Your task to perform on an android device: turn notification dots on Image 0: 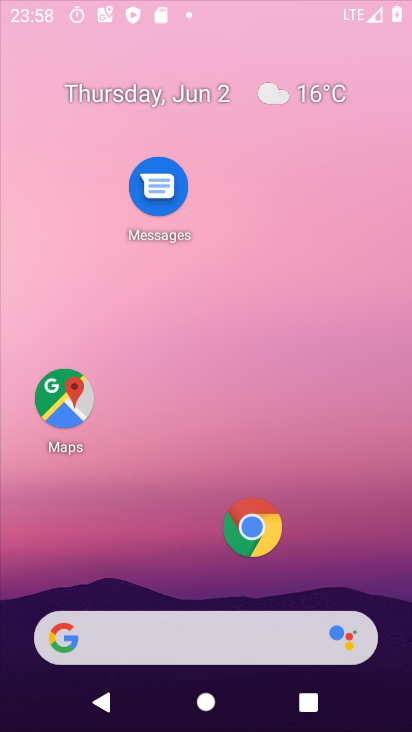
Step 0: press home button
Your task to perform on an android device: turn notification dots on Image 1: 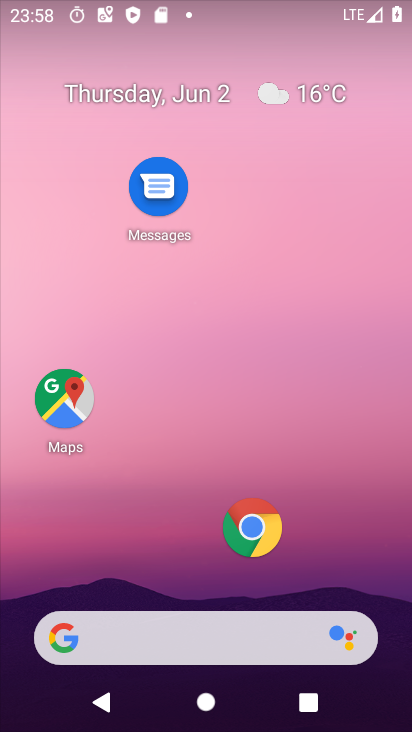
Step 1: drag from (210, 581) to (229, 80)
Your task to perform on an android device: turn notification dots on Image 2: 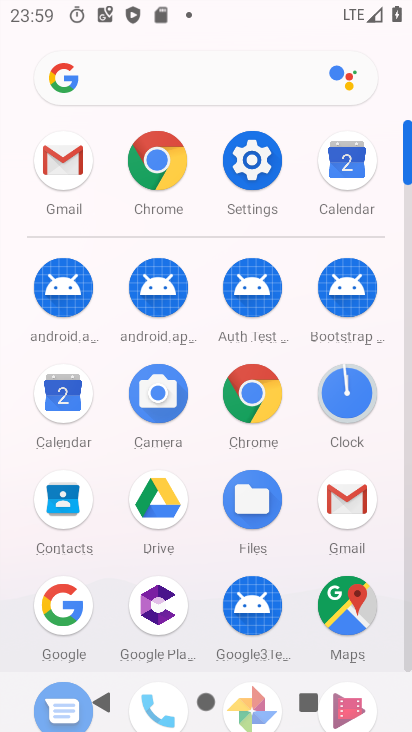
Step 2: click (251, 154)
Your task to perform on an android device: turn notification dots on Image 3: 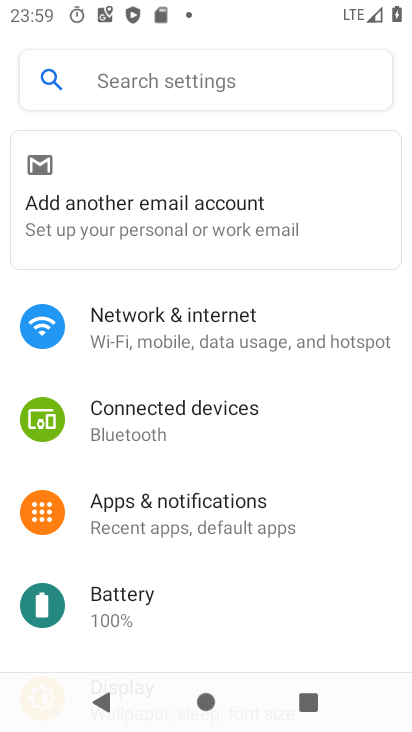
Step 3: click (272, 505)
Your task to perform on an android device: turn notification dots on Image 4: 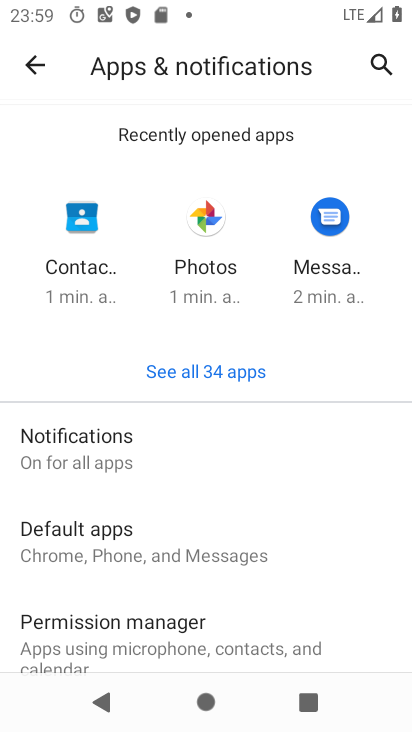
Step 4: click (152, 444)
Your task to perform on an android device: turn notification dots on Image 5: 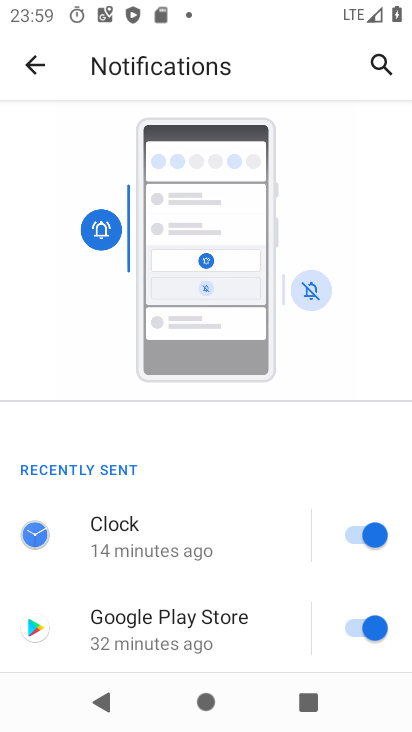
Step 5: drag from (267, 645) to (286, 159)
Your task to perform on an android device: turn notification dots on Image 6: 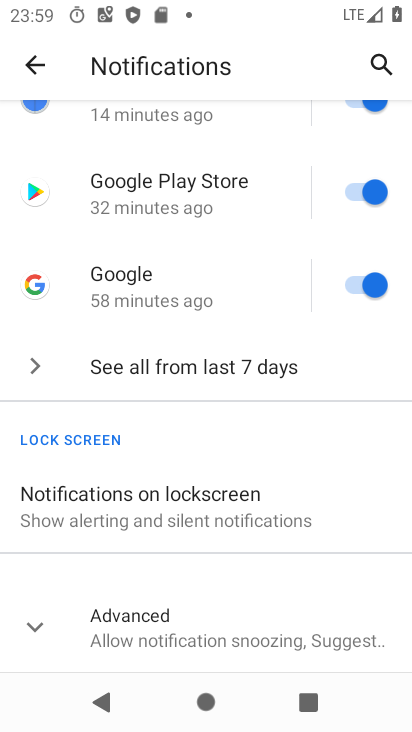
Step 6: click (35, 617)
Your task to perform on an android device: turn notification dots on Image 7: 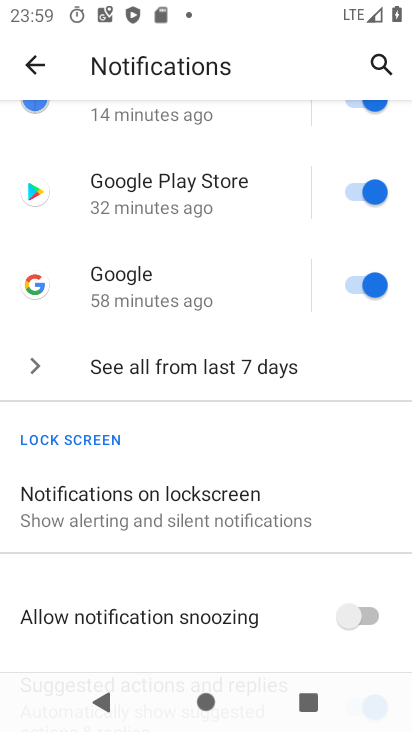
Step 7: drag from (216, 638) to (264, 125)
Your task to perform on an android device: turn notification dots on Image 8: 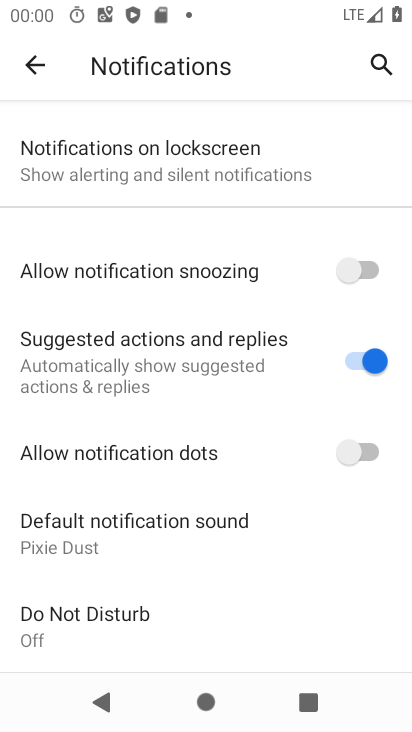
Step 8: click (365, 449)
Your task to perform on an android device: turn notification dots on Image 9: 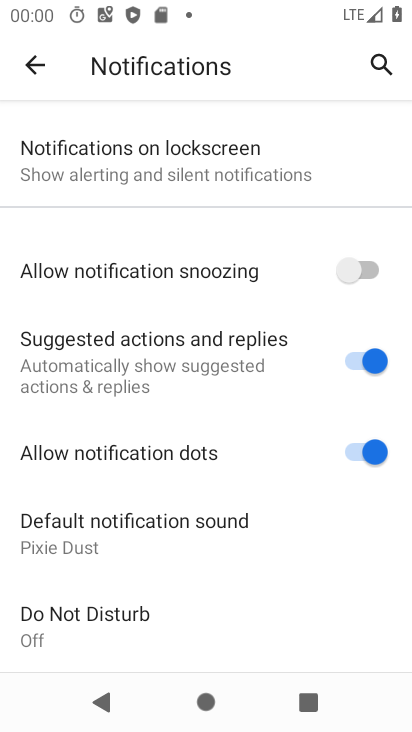
Step 9: task complete